Your task to perform on an android device: turn on the 12-hour format for clock Image 0: 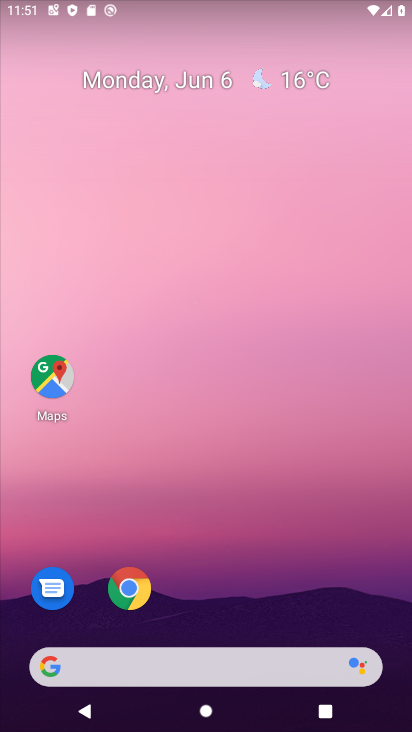
Step 0: drag from (284, 664) to (406, 313)
Your task to perform on an android device: turn on the 12-hour format for clock Image 1: 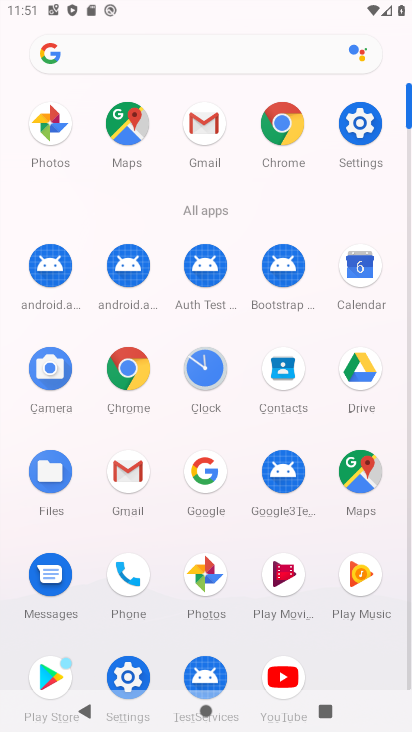
Step 1: click (192, 368)
Your task to perform on an android device: turn on the 12-hour format for clock Image 2: 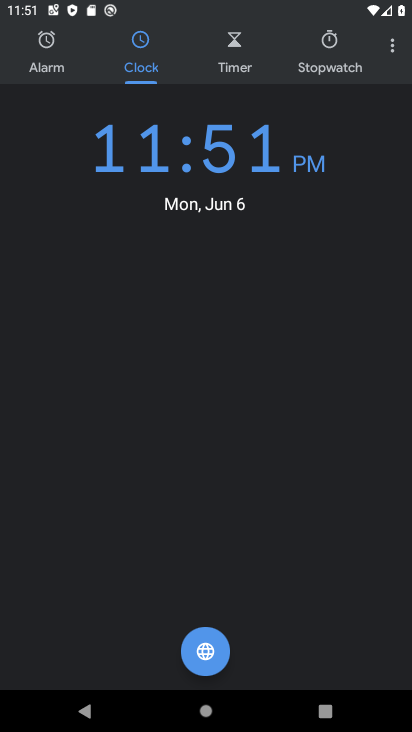
Step 2: click (390, 34)
Your task to perform on an android device: turn on the 12-hour format for clock Image 3: 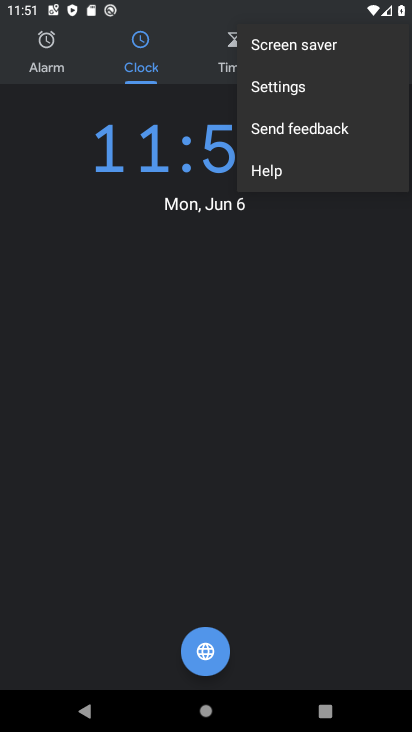
Step 3: click (316, 92)
Your task to perform on an android device: turn on the 12-hour format for clock Image 4: 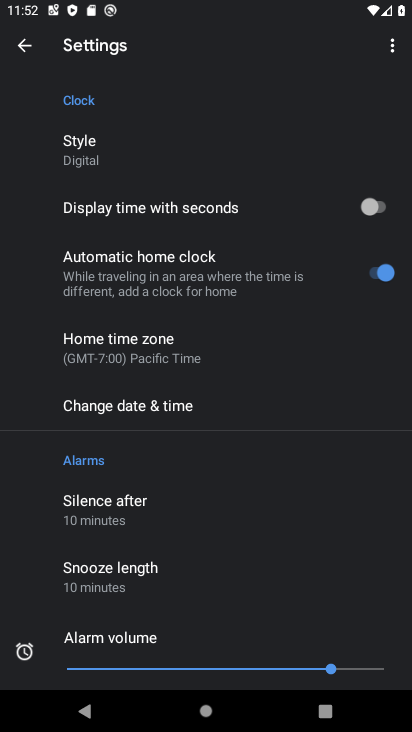
Step 4: click (122, 396)
Your task to perform on an android device: turn on the 12-hour format for clock Image 5: 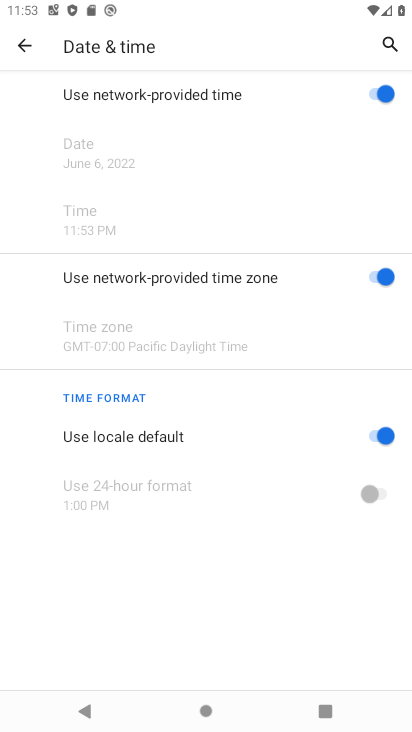
Step 5: task complete